Your task to perform on an android device: What's the latest video from GameTrailers? Image 0: 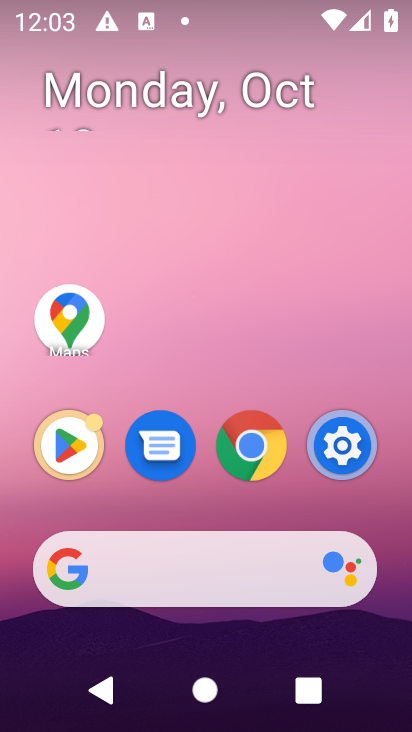
Step 0: click (86, 554)
Your task to perform on an android device: What's the latest video from GameTrailers? Image 1: 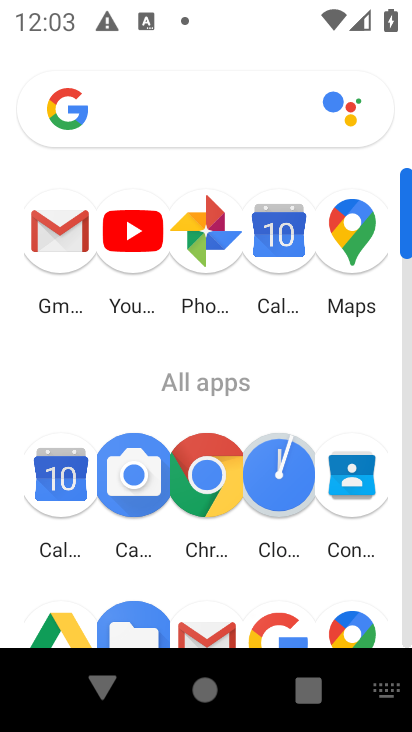
Step 1: click (171, 115)
Your task to perform on an android device: What's the latest video from GameTrailers? Image 2: 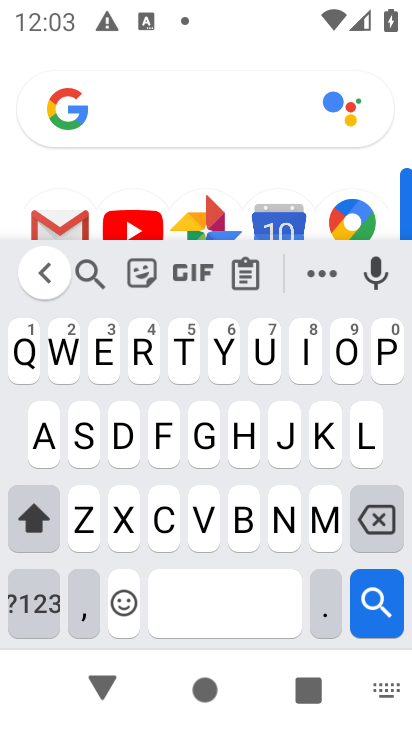
Step 2: type "whats the latest video from game trailers ?"
Your task to perform on an android device: What's the latest video from GameTrailers? Image 3: 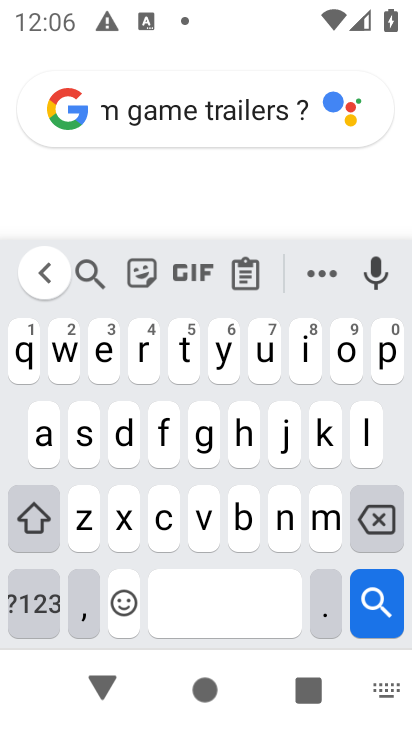
Step 3: task complete